Your task to perform on an android device: Add "macbook pro" to the cart on target.com, then select checkout. Image 0: 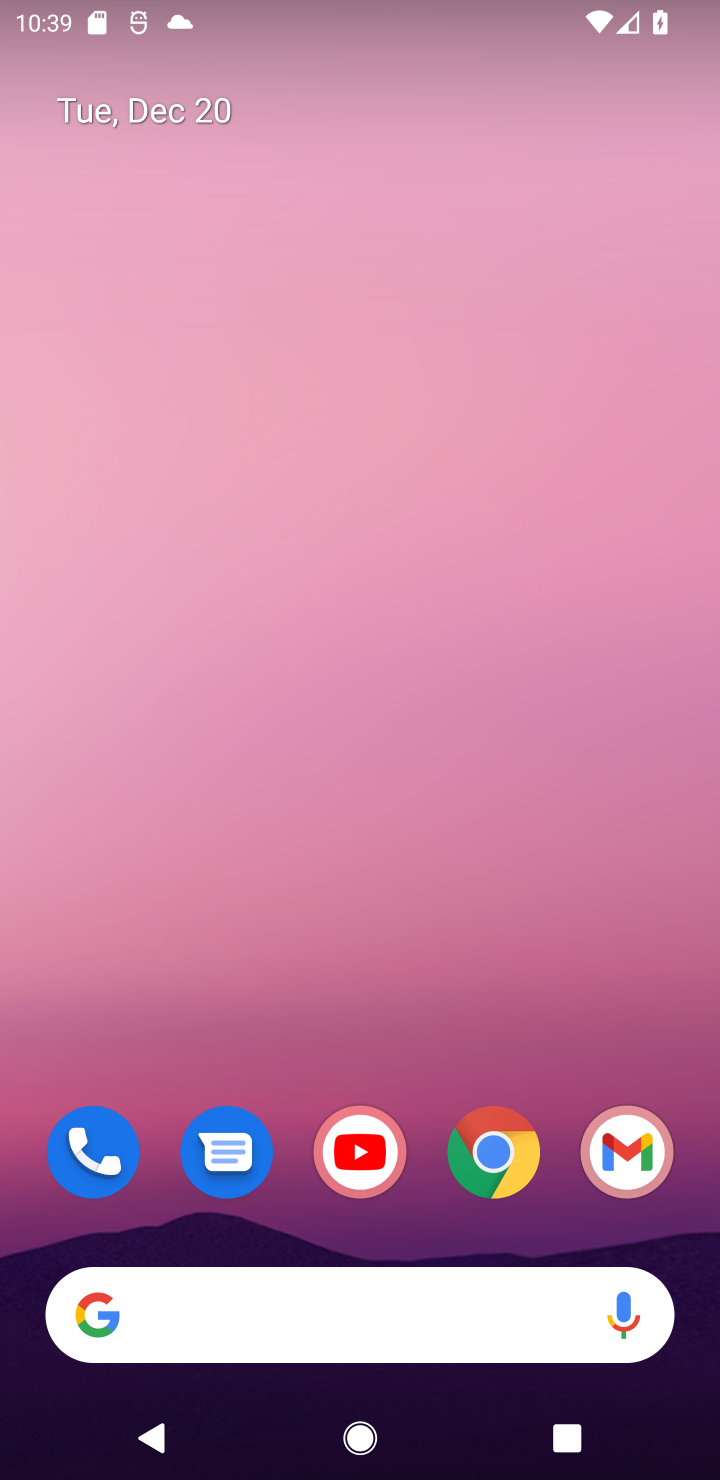
Step 0: click (475, 1163)
Your task to perform on an android device: Add "macbook pro" to the cart on target.com, then select checkout. Image 1: 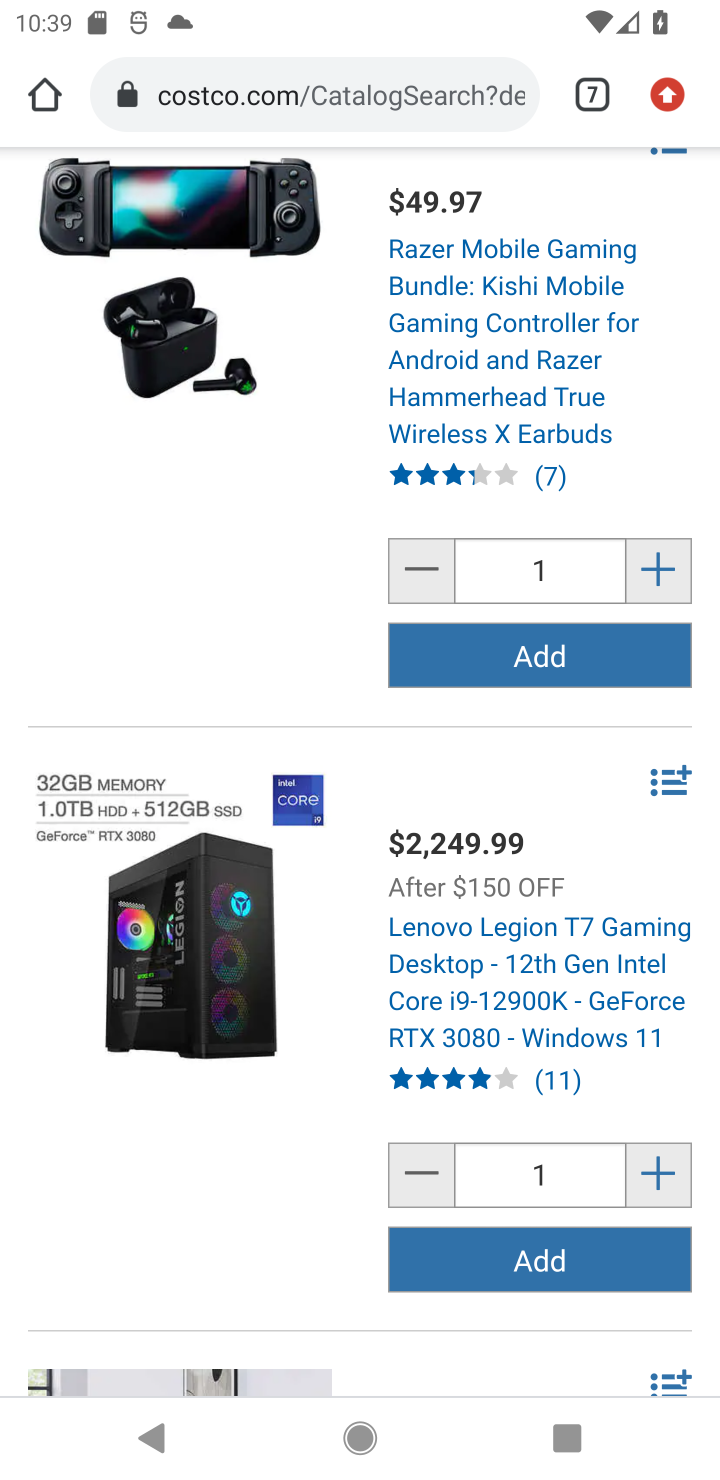
Step 1: click (586, 98)
Your task to perform on an android device: Add "macbook pro" to the cart on target.com, then select checkout. Image 2: 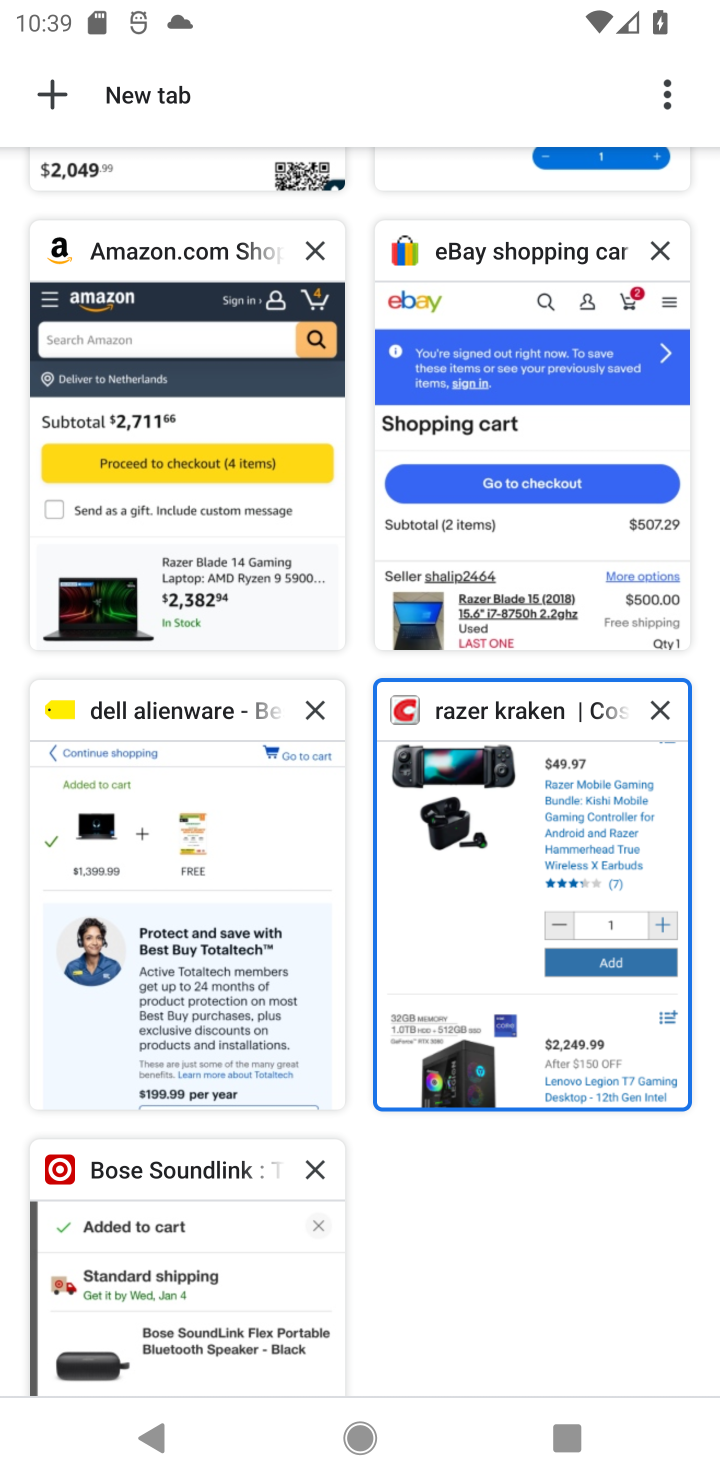
Step 2: click (225, 1259)
Your task to perform on an android device: Add "macbook pro" to the cart on target.com, then select checkout. Image 3: 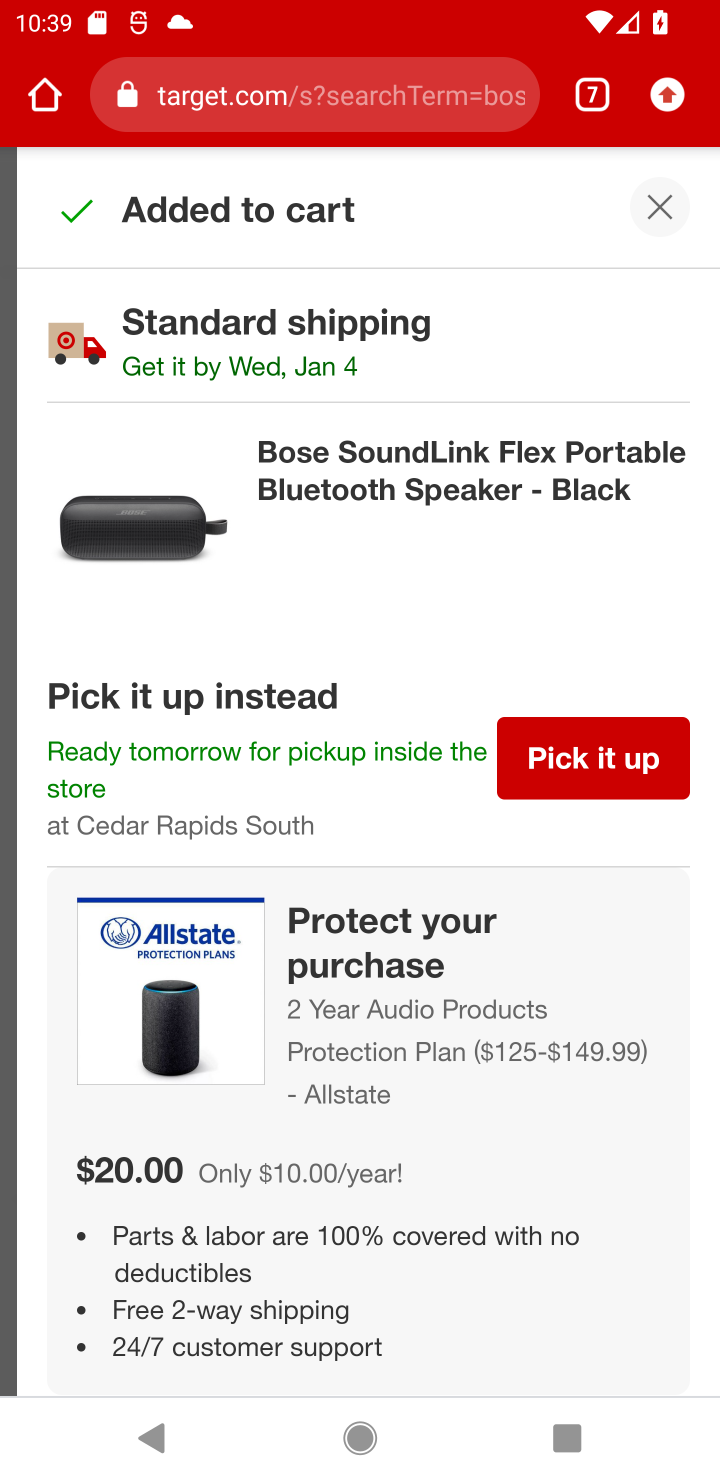
Step 3: click (660, 200)
Your task to perform on an android device: Add "macbook pro" to the cart on target.com, then select checkout. Image 4: 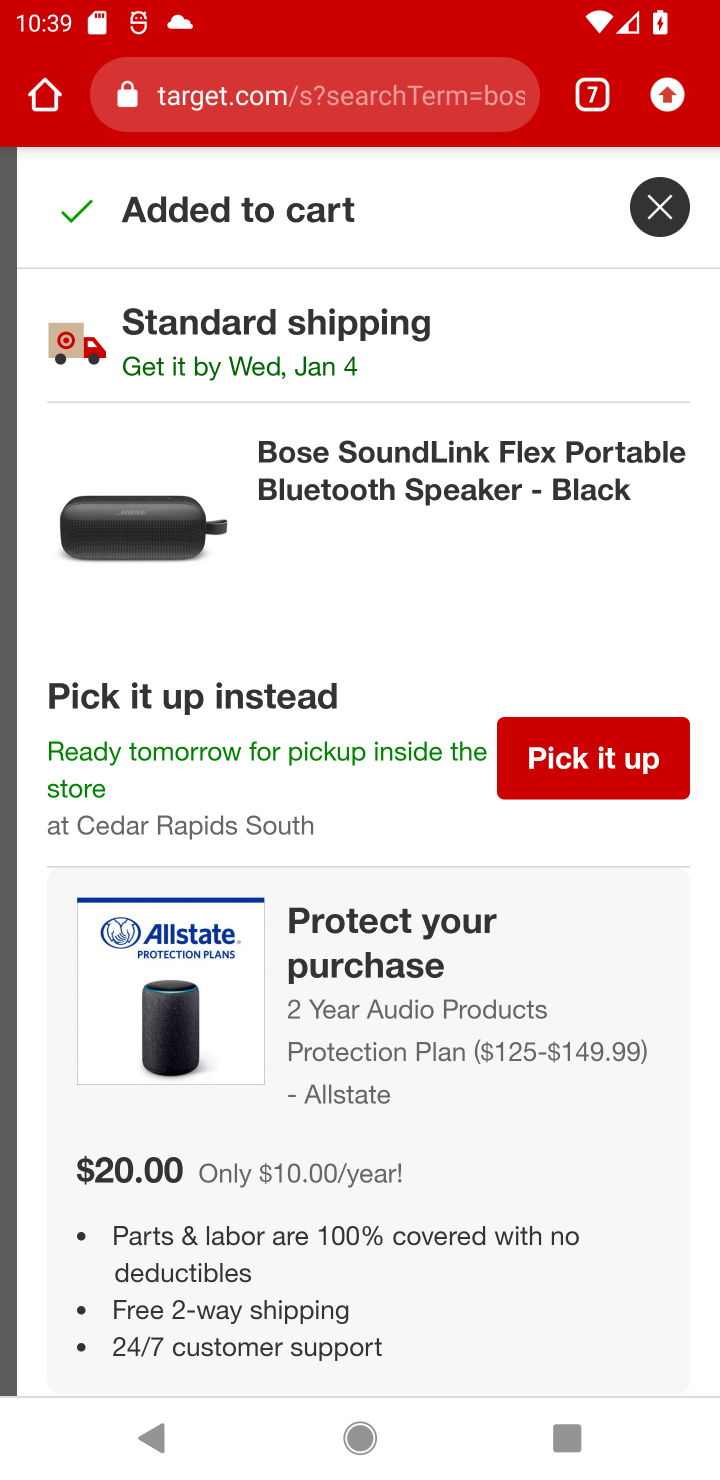
Step 4: click (660, 214)
Your task to perform on an android device: Add "macbook pro" to the cart on target.com, then select checkout. Image 5: 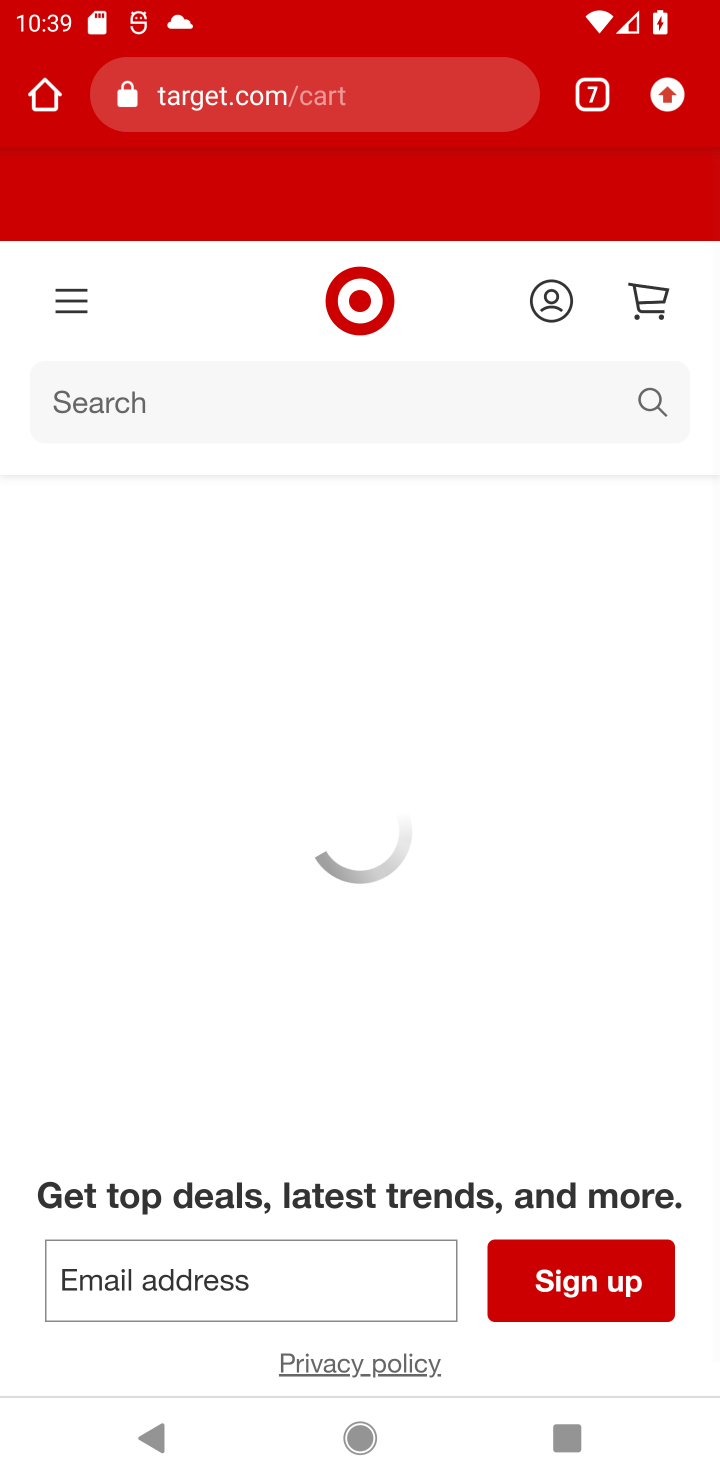
Step 5: click (365, 202)
Your task to perform on an android device: Add "macbook pro" to the cart on target.com, then select checkout. Image 6: 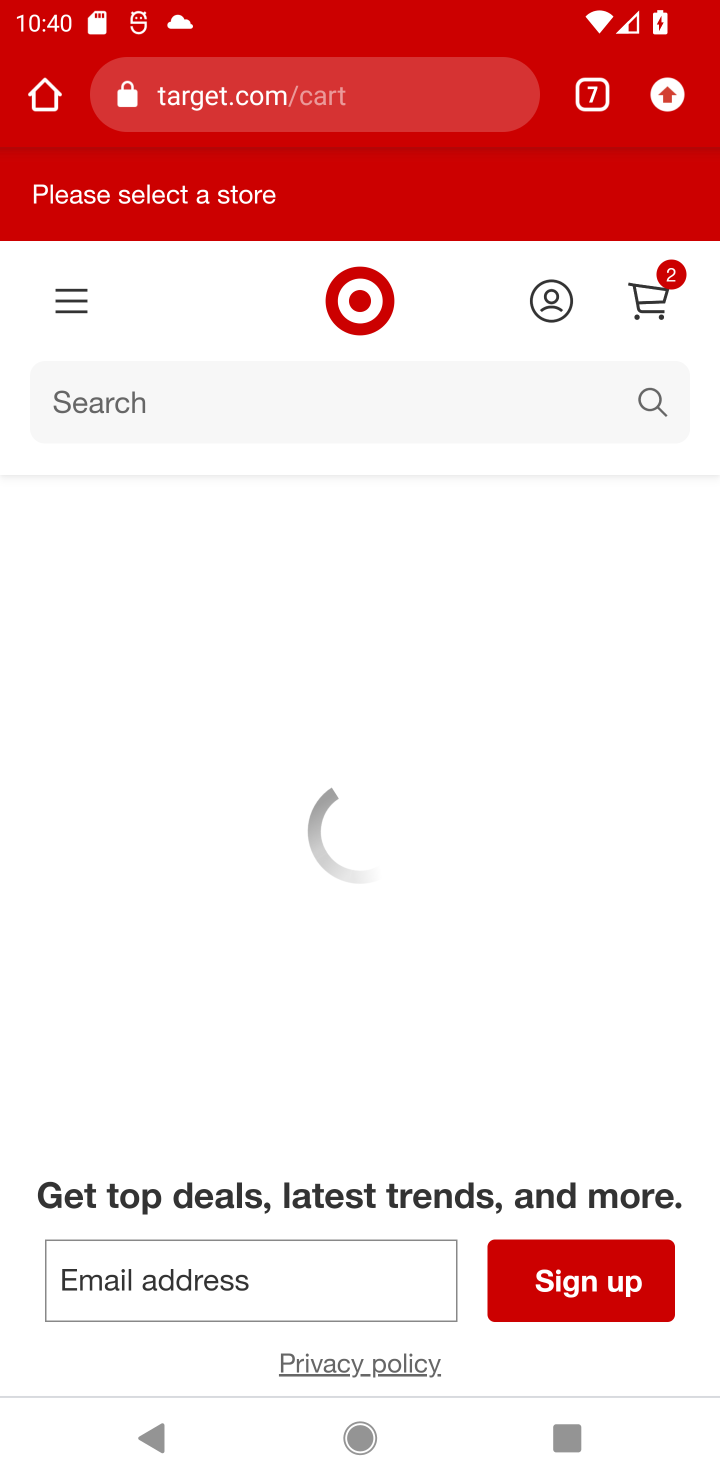
Step 6: click (306, 403)
Your task to perform on an android device: Add "macbook pro" to the cart on target.com, then select checkout. Image 7: 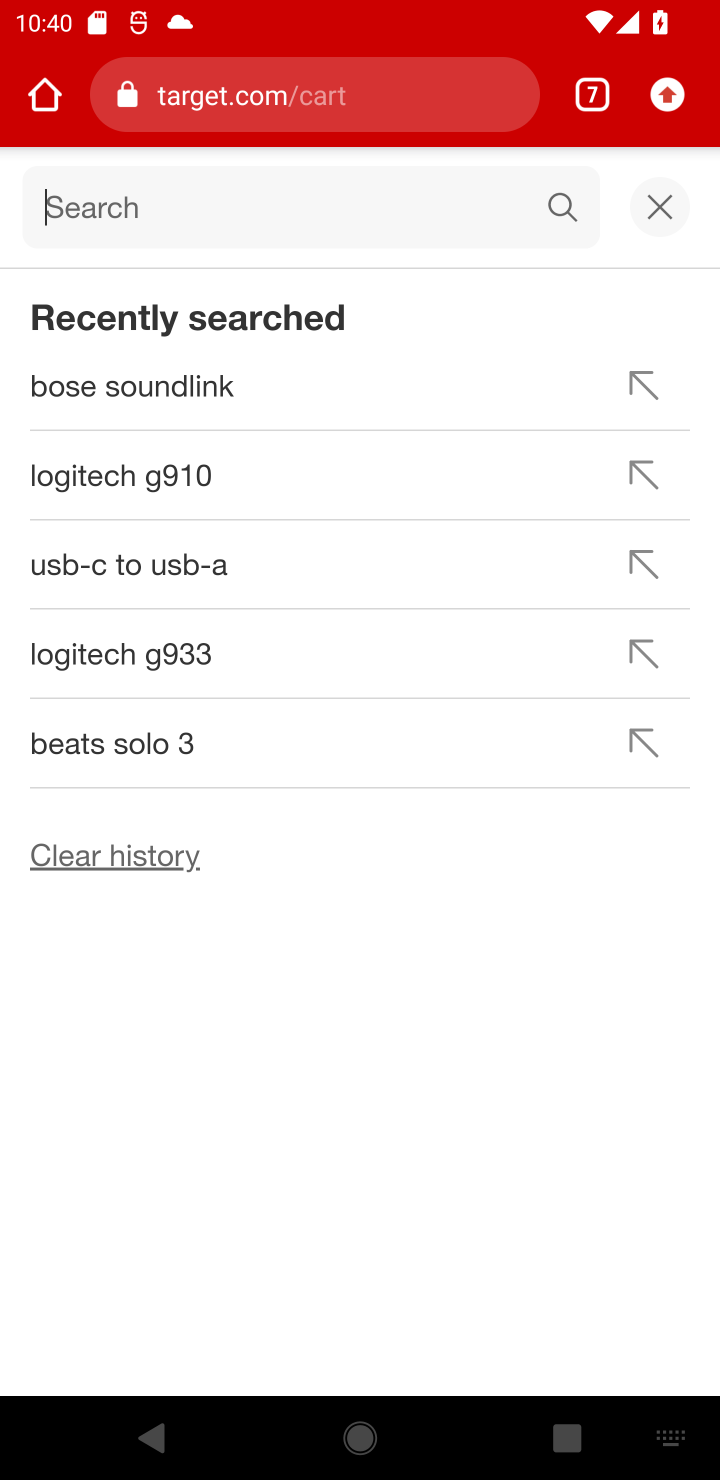
Step 7: type "macbook pro"
Your task to perform on an android device: Add "macbook pro" to the cart on target.com, then select checkout. Image 8: 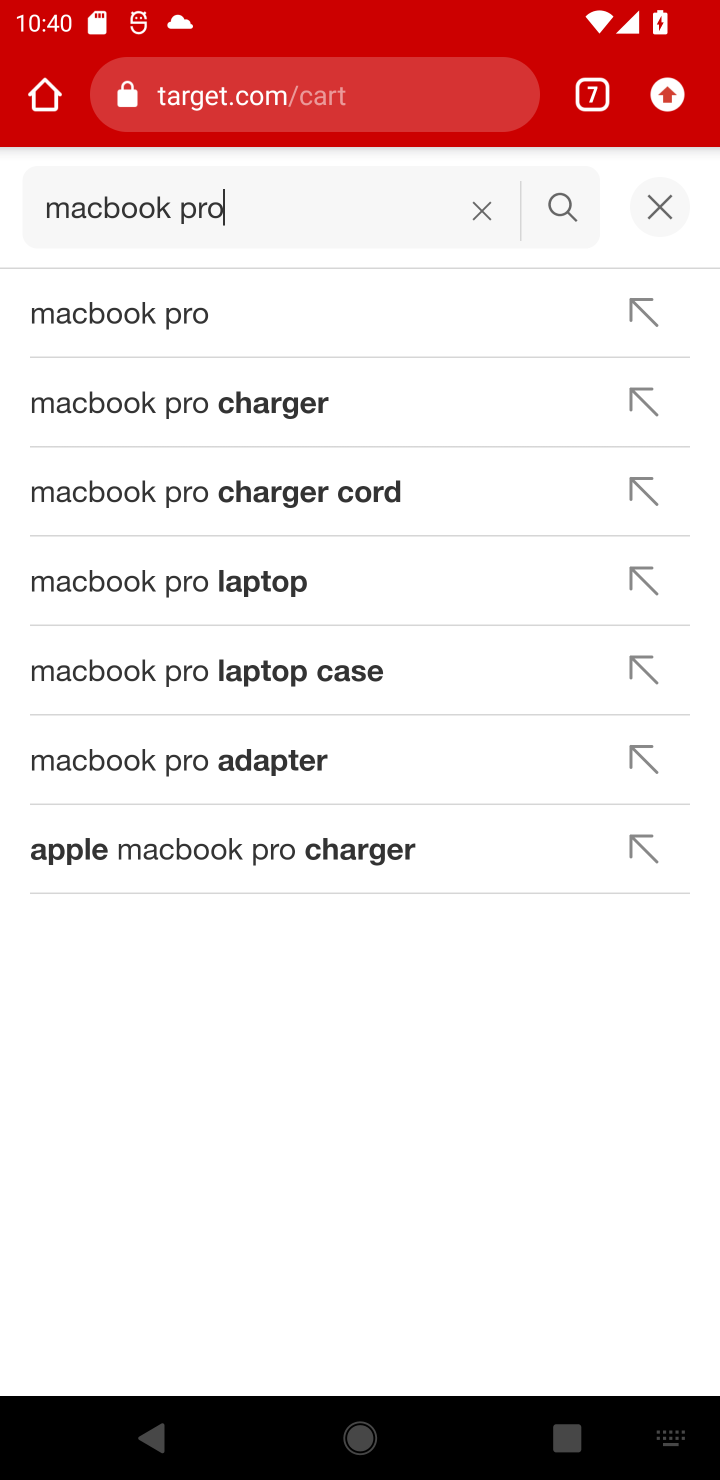
Step 8: click (559, 200)
Your task to perform on an android device: Add "macbook pro" to the cart on target.com, then select checkout. Image 9: 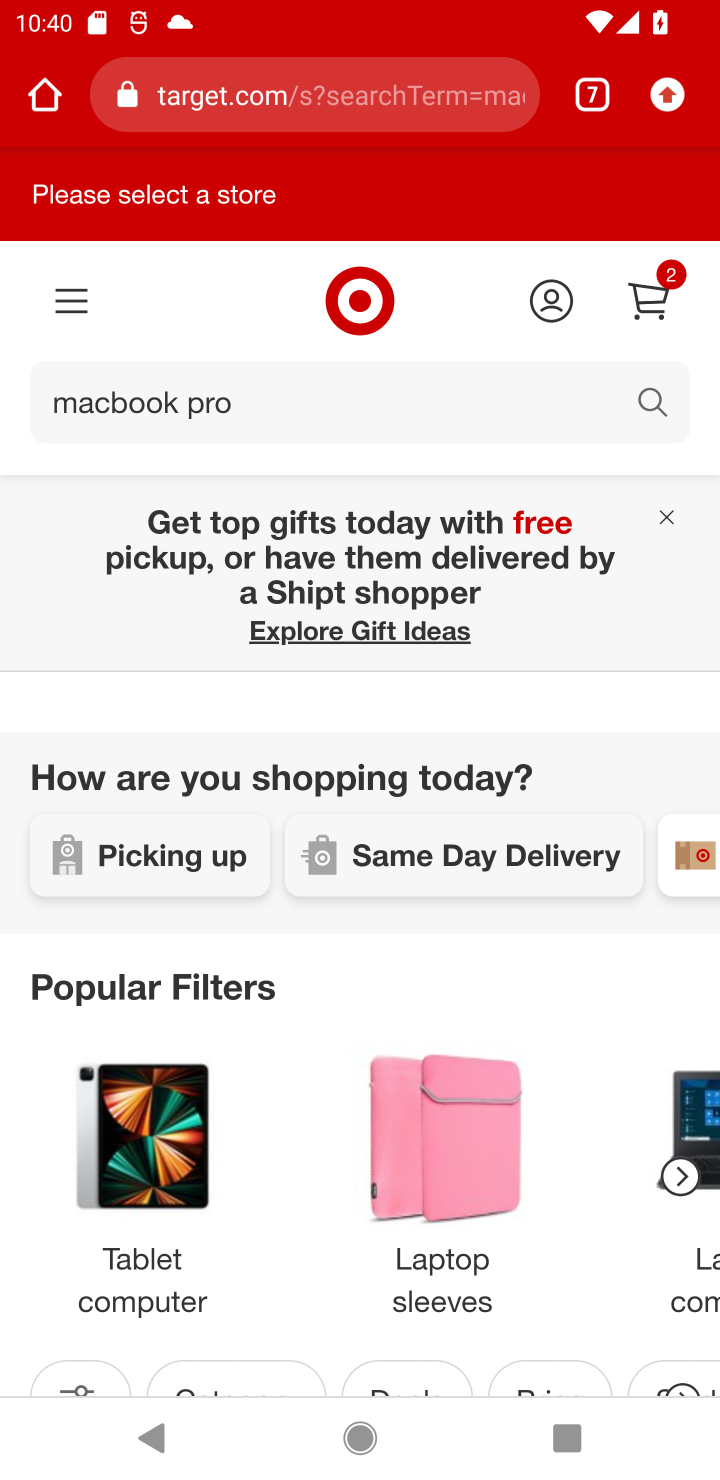
Step 9: task complete